Your task to perform on an android device: Do I have any events this weekend? Image 0: 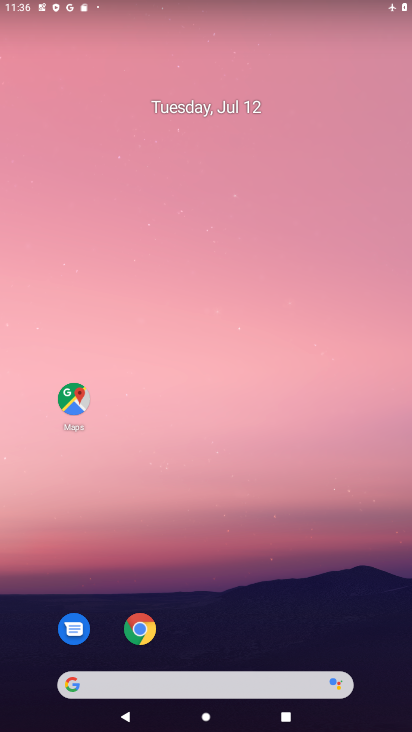
Step 0: drag from (241, 626) to (226, 308)
Your task to perform on an android device: Do I have any events this weekend? Image 1: 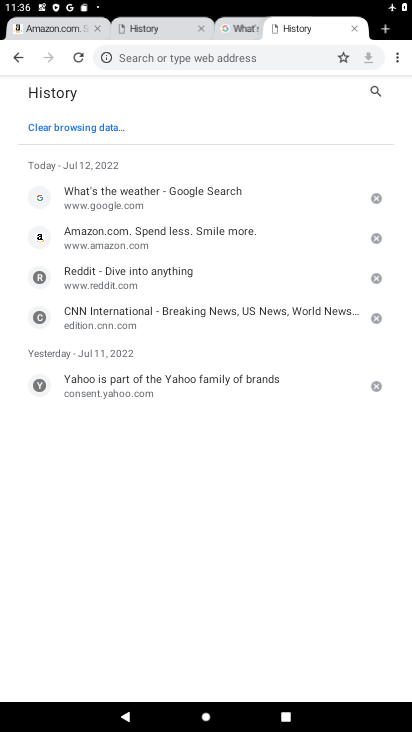
Step 1: press home button
Your task to perform on an android device: Do I have any events this weekend? Image 2: 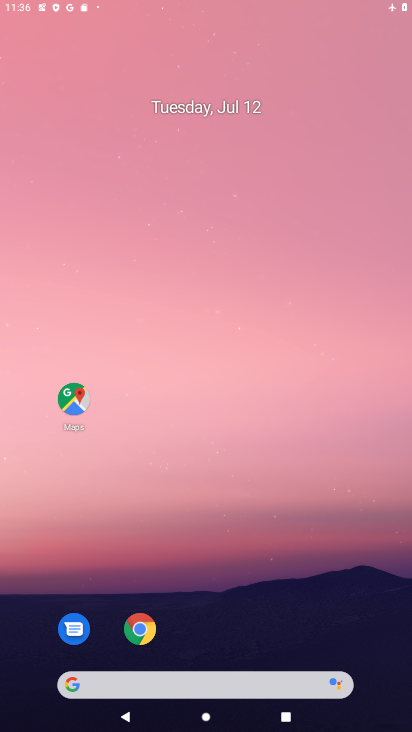
Step 2: drag from (235, 593) to (235, 319)
Your task to perform on an android device: Do I have any events this weekend? Image 3: 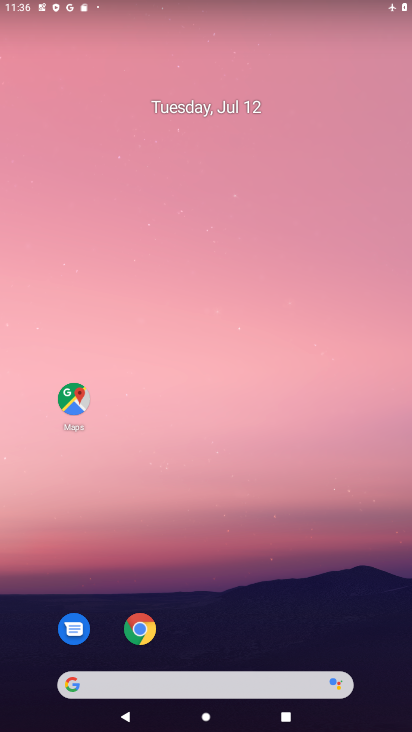
Step 3: drag from (200, 661) to (200, 191)
Your task to perform on an android device: Do I have any events this weekend? Image 4: 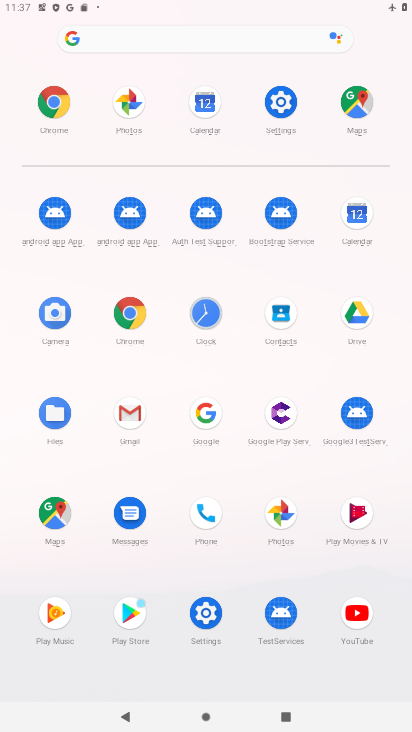
Step 4: click (359, 205)
Your task to perform on an android device: Do I have any events this weekend? Image 5: 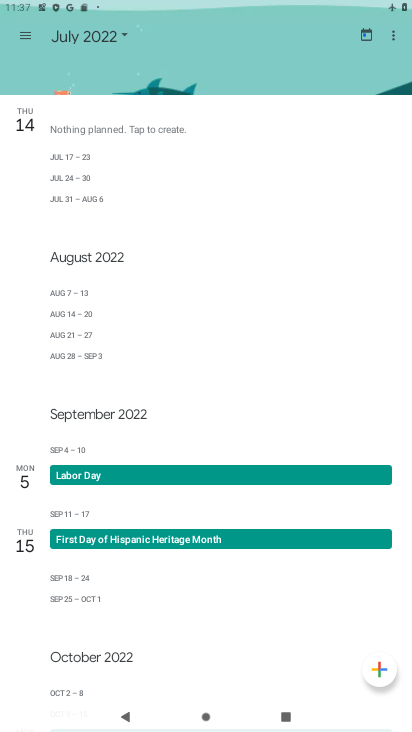
Step 5: click (13, 34)
Your task to perform on an android device: Do I have any events this weekend? Image 6: 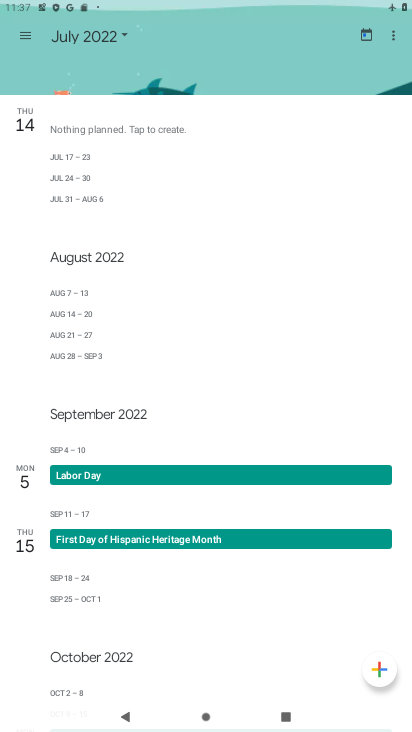
Step 6: click (23, 35)
Your task to perform on an android device: Do I have any events this weekend? Image 7: 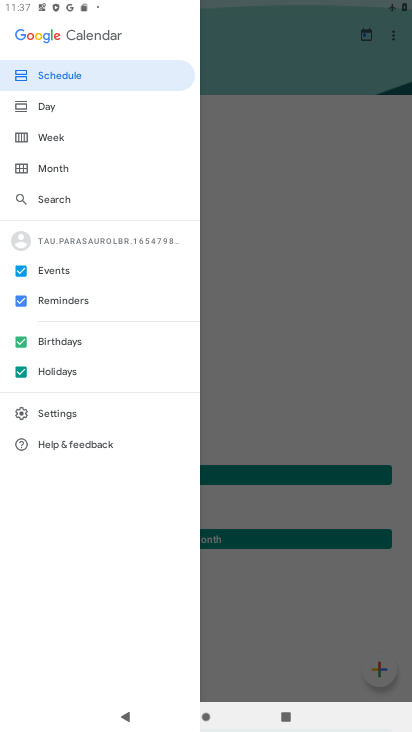
Step 7: click (63, 138)
Your task to perform on an android device: Do I have any events this weekend? Image 8: 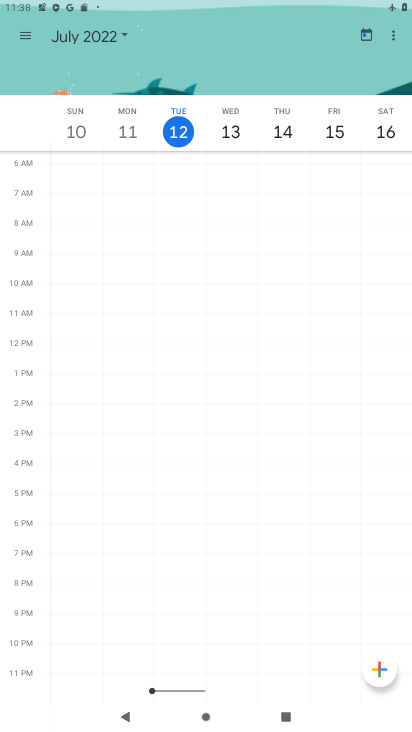
Step 8: task complete